Your task to perform on an android device: Open Google Maps Image 0: 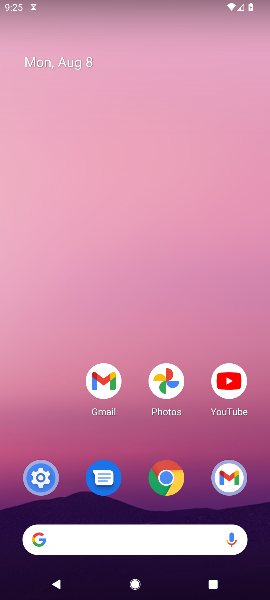
Step 0: press home button
Your task to perform on an android device: Open Google Maps Image 1: 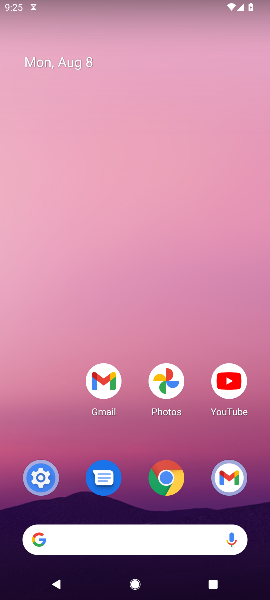
Step 1: drag from (133, 536) to (252, 97)
Your task to perform on an android device: Open Google Maps Image 2: 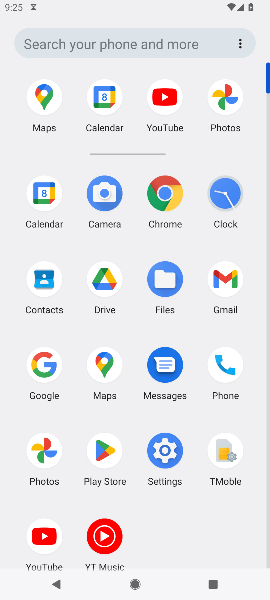
Step 2: click (111, 366)
Your task to perform on an android device: Open Google Maps Image 3: 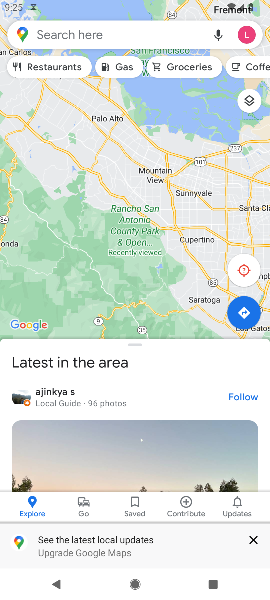
Step 3: task complete